Your task to perform on an android device: check the backup settings in the google photos Image 0: 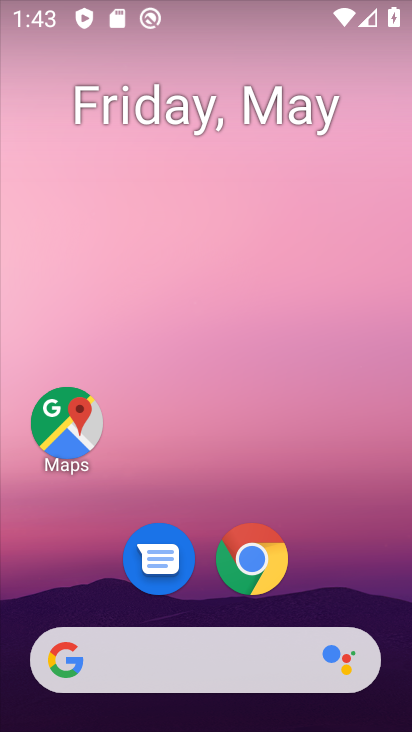
Step 0: drag from (334, 436) to (335, 183)
Your task to perform on an android device: check the backup settings in the google photos Image 1: 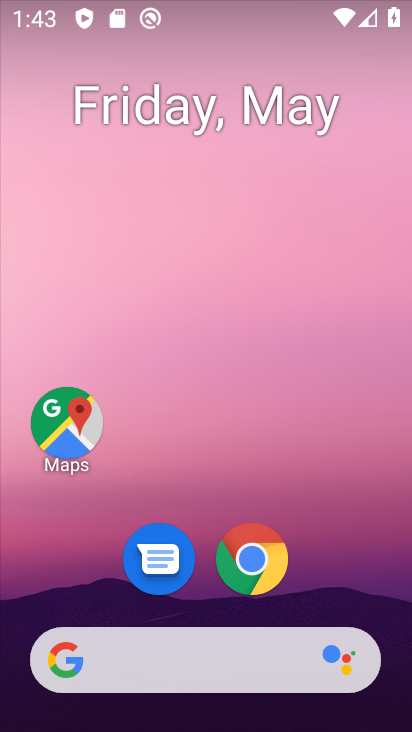
Step 1: drag from (305, 554) to (322, 121)
Your task to perform on an android device: check the backup settings in the google photos Image 2: 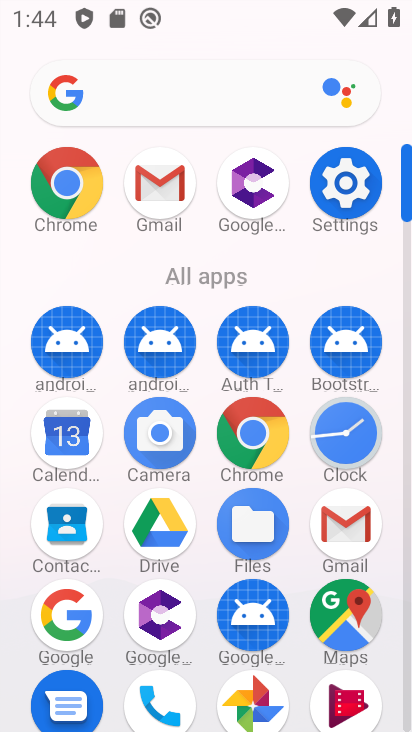
Step 2: click (247, 684)
Your task to perform on an android device: check the backup settings in the google photos Image 3: 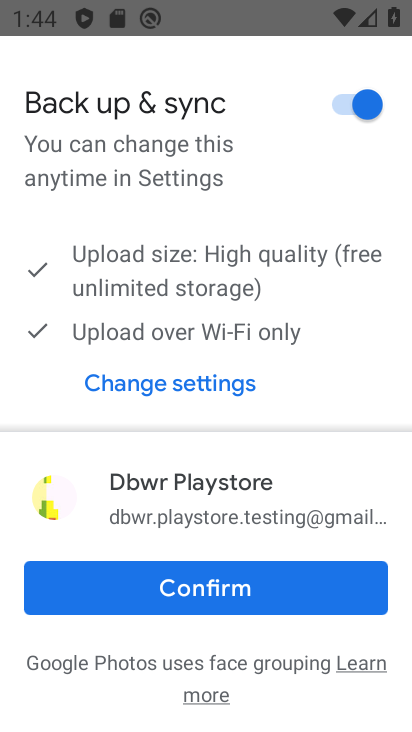
Step 3: click (240, 589)
Your task to perform on an android device: check the backup settings in the google photos Image 4: 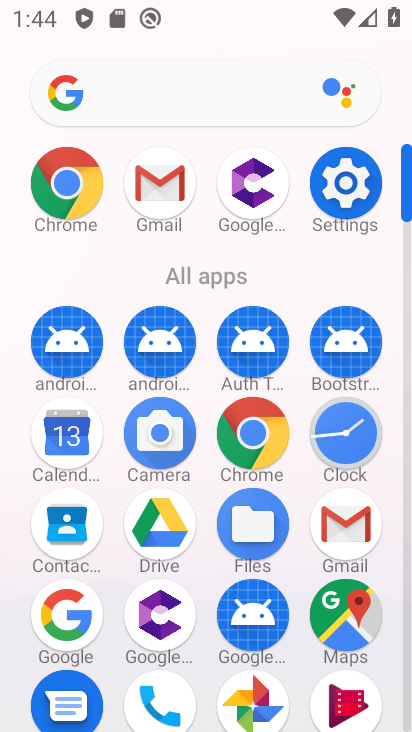
Step 4: click (263, 689)
Your task to perform on an android device: check the backup settings in the google photos Image 5: 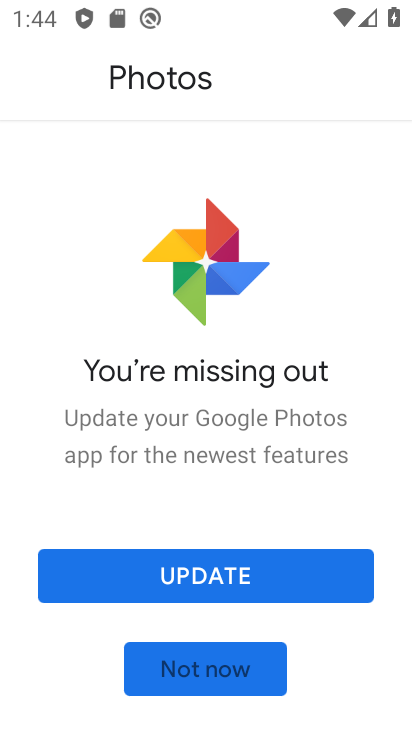
Step 5: click (271, 565)
Your task to perform on an android device: check the backup settings in the google photos Image 6: 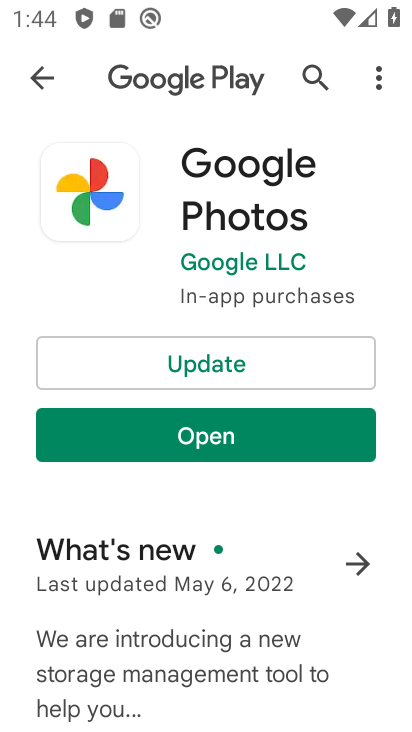
Step 6: click (216, 379)
Your task to perform on an android device: check the backup settings in the google photos Image 7: 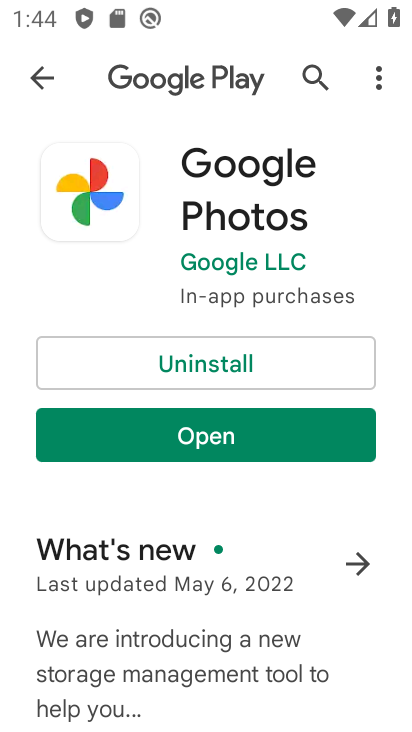
Step 7: click (209, 445)
Your task to perform on an android device: check the backup settings in the google photos Image 8: 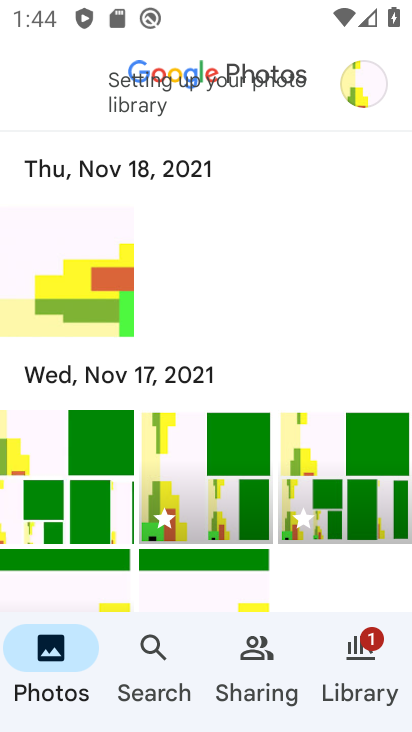
Step 8: click (372, 88)
Your task to perform on an android device: check the backup settings in the google photos Image 9: 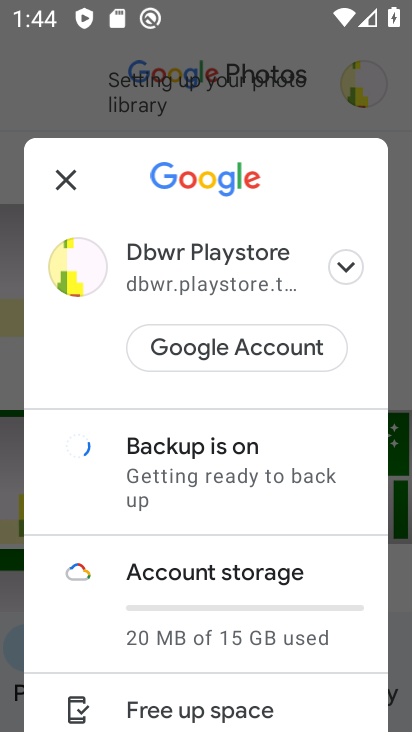
Step 9: drag from (271, 604) to (264, 269)
Your task to perform on an android device: check the backup settings in the google photos Image 10: 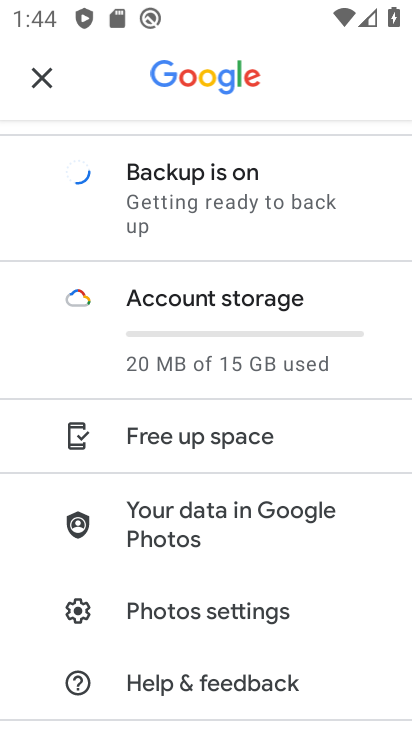
Step 10: click (210, 615)
Your task to perform on an android device: check the backup settings in the google photos Image 11: 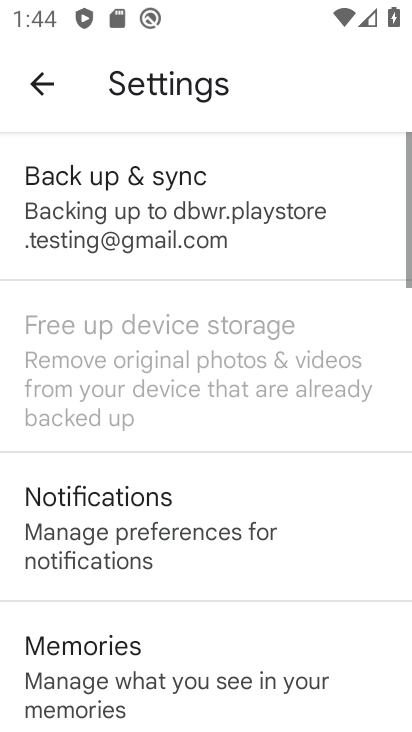
Step 11: click (214, 197)
Your task to perform on an android device: check the backup settings in the google photos Image 12: 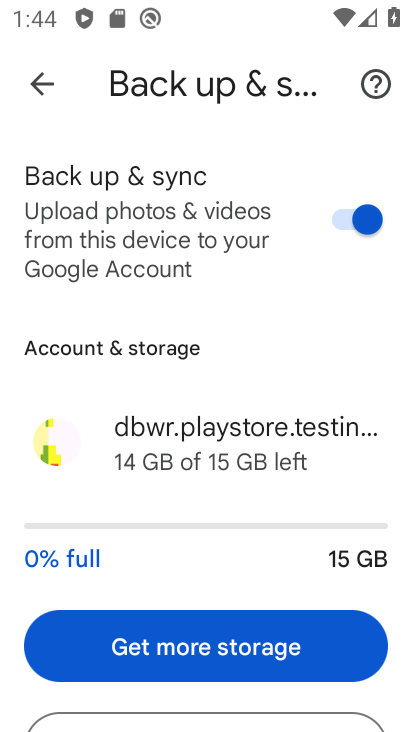
Step 12: task complete